Your task to perform on an android device: Open sound settings Image 0: 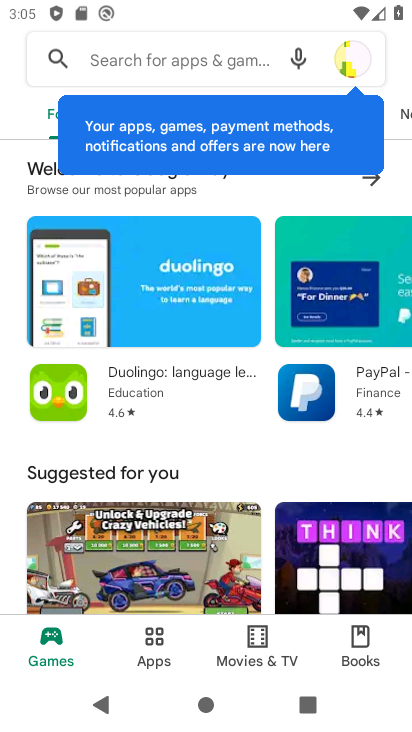
Step 0: press home button
Your task to perform on an android device: Open sound settings Image 1: 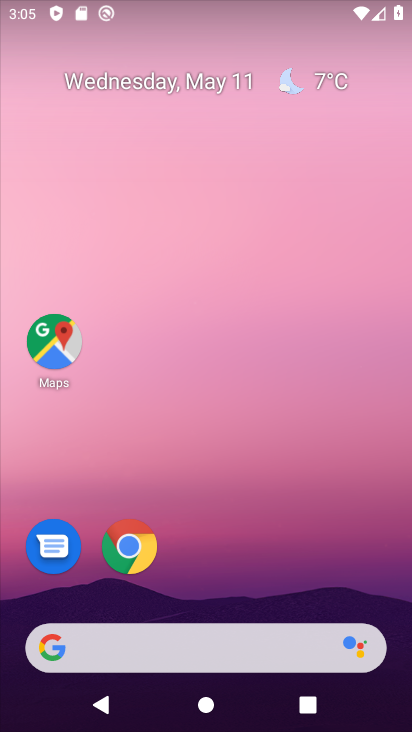
Step 1: drag from (356, 619) to (289, 9)
Your task to perform on an android device: Open sound settings Image 2: 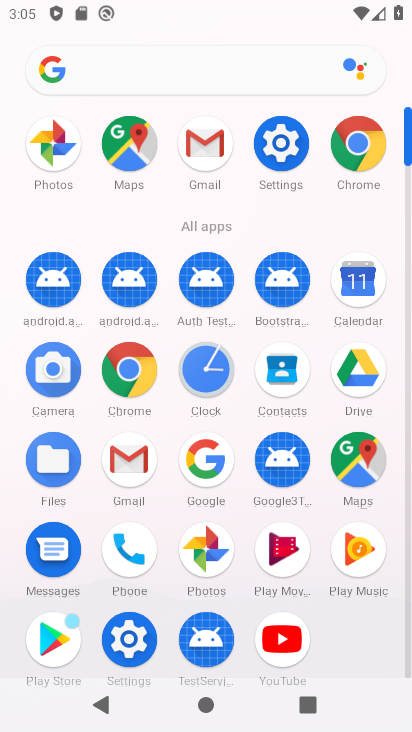
Step 2: click (275, 133)
Your task to perform on an android device: Open sound settings Image 3: 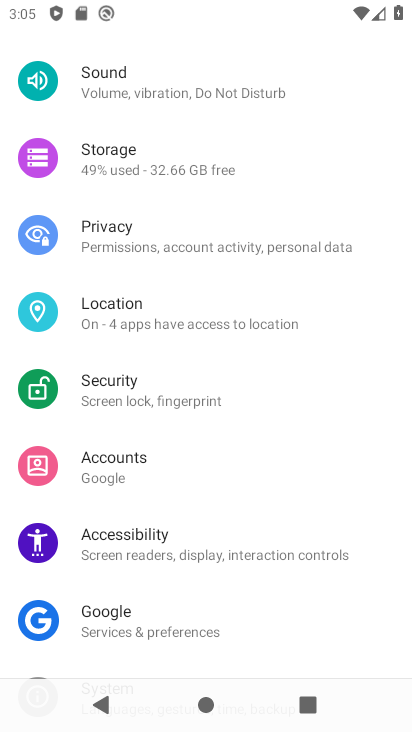
Step 3: click (219, 95)
Your task to perform on an android device: Open sound settings Image 4: 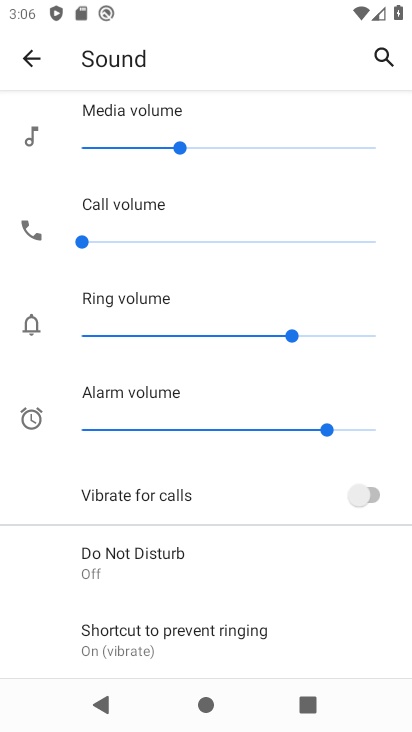
Step 4: task complete